Your task to perform on an android device: Open Youtube and go to the subscriptions tab Image 0: 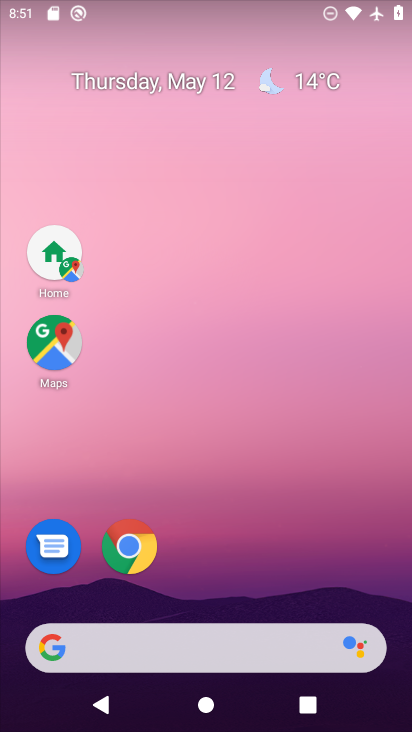
Step 0: drag from (129, 653) to (275, 107)
Your task to perform on an android device: Open Youtube and go to the subscriptions tab Image 1: 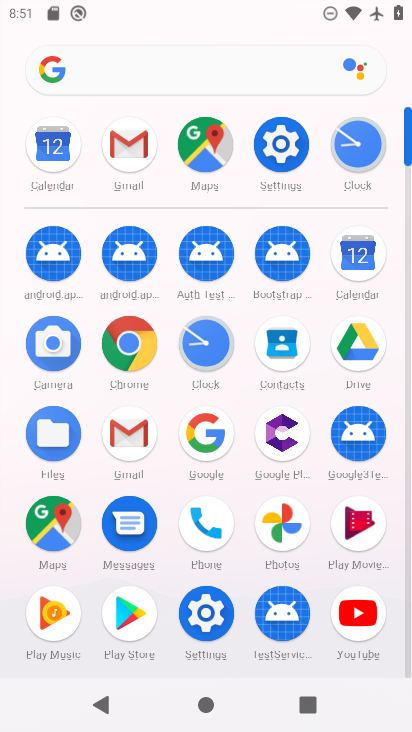
Step 1: click (358, 620)
Your task to perform on an android device: Open Youtube and go to the subscriptions tab Image 2: 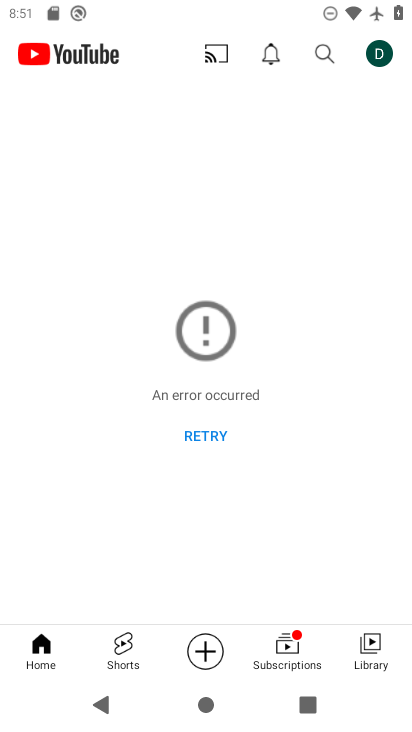
Step 2: click (197, 429)
Your task to perform on an android device: Open Youtube and go to the subscriptions tab Image 3: 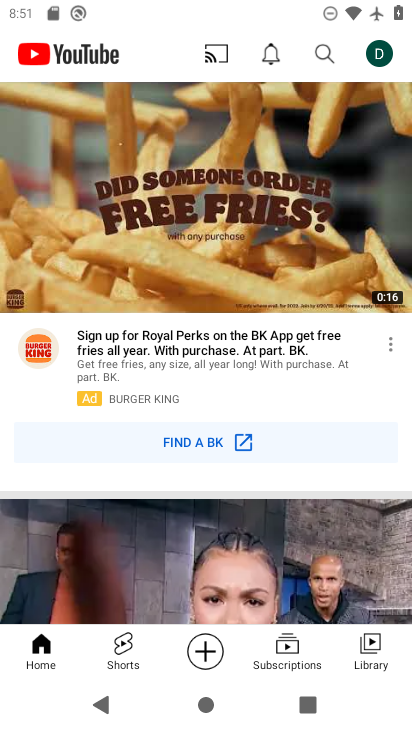
Step 3: click (292, 659)
Your task to perform on an android device: Open Youtube and go to the subscriptions tab Image 4: 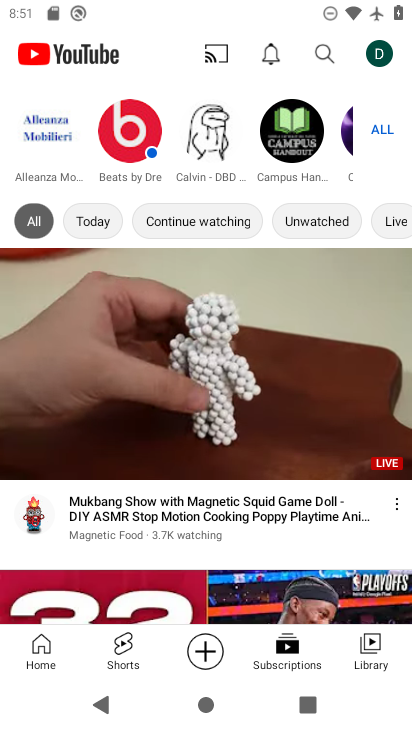
Step 4: task complete